Your task to perform on an android device: open wifi settings Image 0: 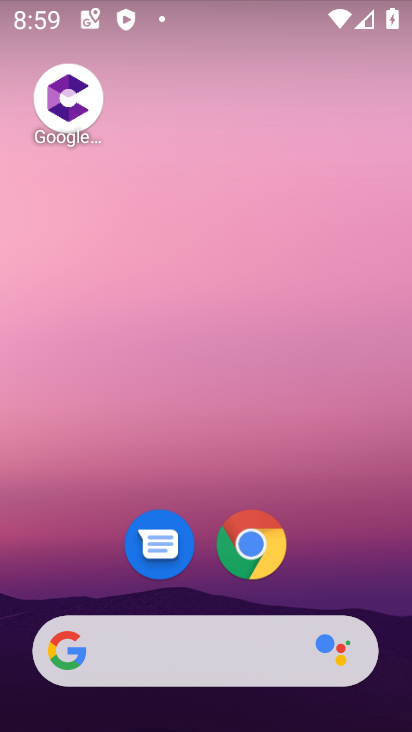
Step 0: drag from (83, 582) to (224, 67)
Your task to perform on an android device: open wifi settings Image 1: 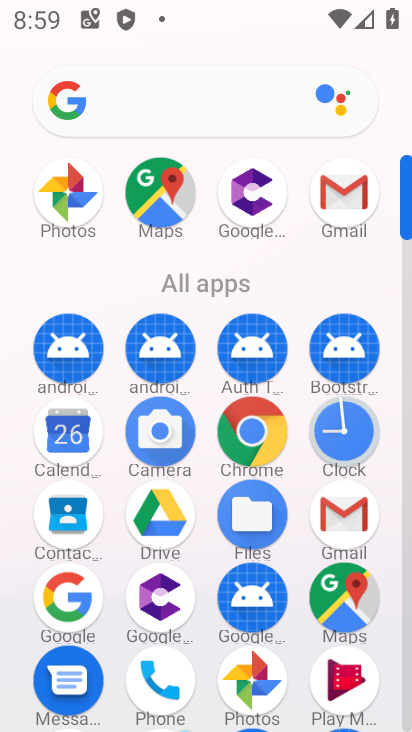
Step 1: drag from (193, 582) to (260, 334)
Your task to perform on an android device: open wifi settings Image 2: 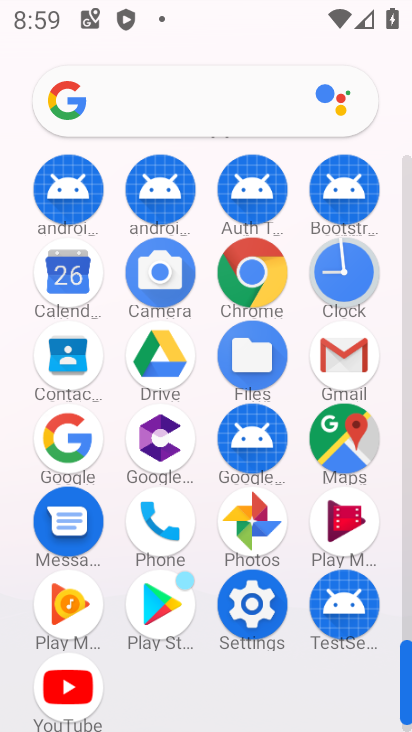
Step 2: click (246, 601)
Your task to perform on an android device: open wifi settings Image 3: 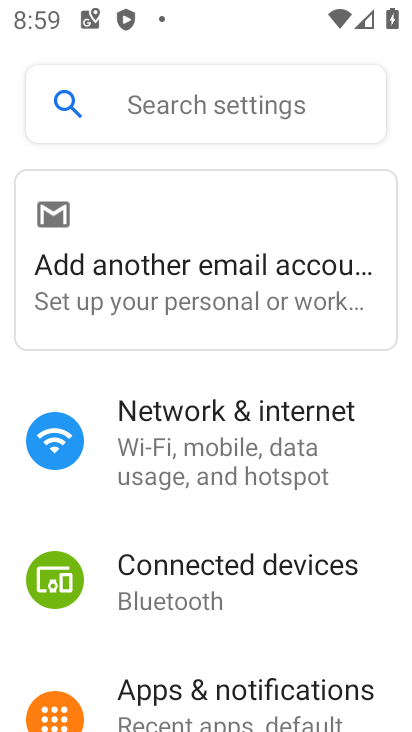
Step 3: click (240, 443)
Your task to perform on an android device: open wifi settings Image 4: 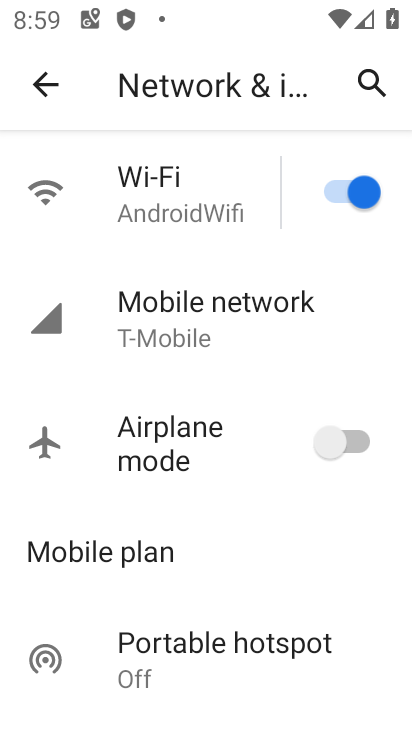
Step 4: click (177, 228)
Your task to perform on an android device: open wifi settings Image 5: 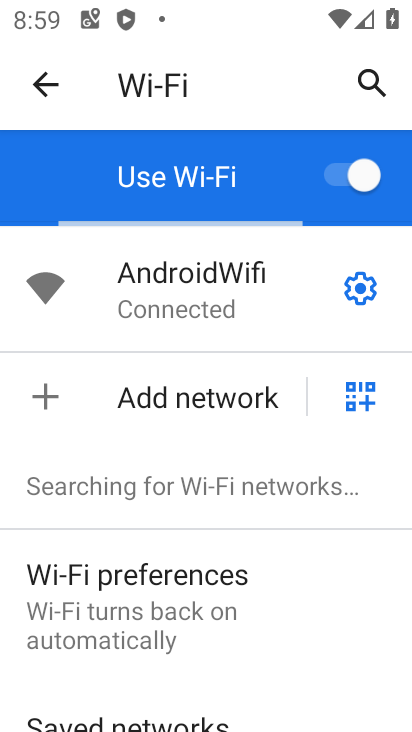
Step 5: task complete